Your task to perform on an android device: Open Google Chrome and click the shortcut for Amazon.com Image 0: 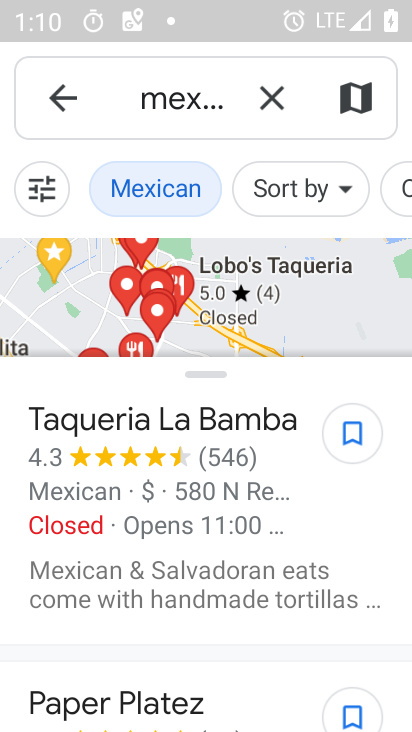
Step 0: press home button
Your task to perform on an android device: Open Google Chrome and click the shortcut for Amazon.com Image 1: 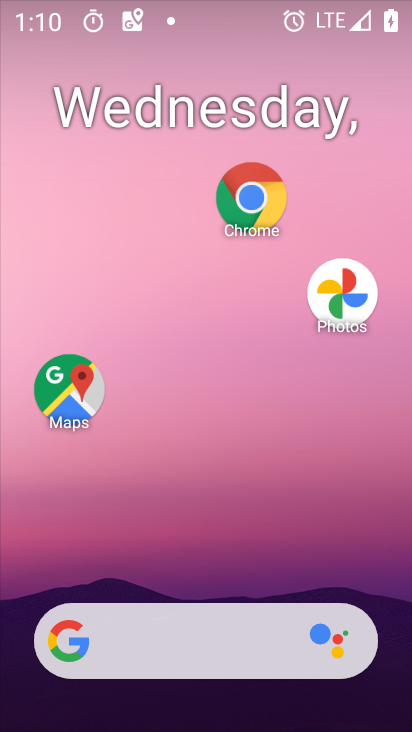
Step 1: drag from (316, 624) to (311, 227)
Your task to perform on an android device: Open Google Chrome and click the shortcut for Amazon.com Image 2: 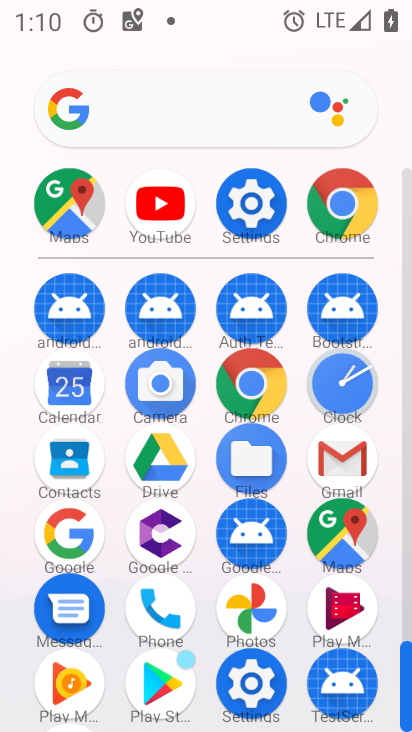
Step 2: click (335, 222)
Your task to perform on an android device: Open Google Chrome and click the shortcut for Amazon.com Image 3: 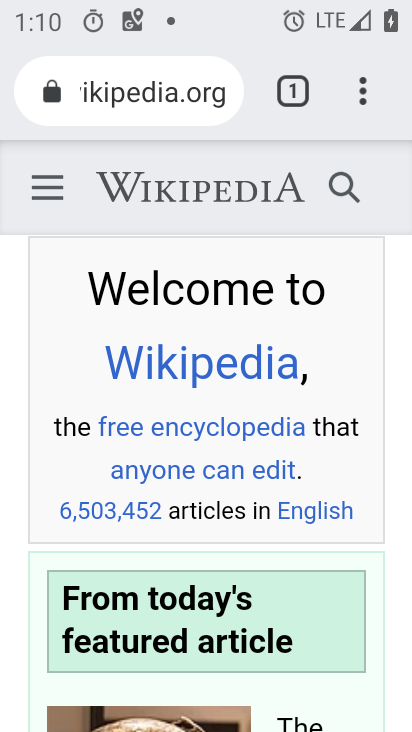
Step 3: drag from (87, 72) to (113, 224)
Your task to perform on an android device: Open Google Chrome and click the shortcut for Amazon.com Image 4: 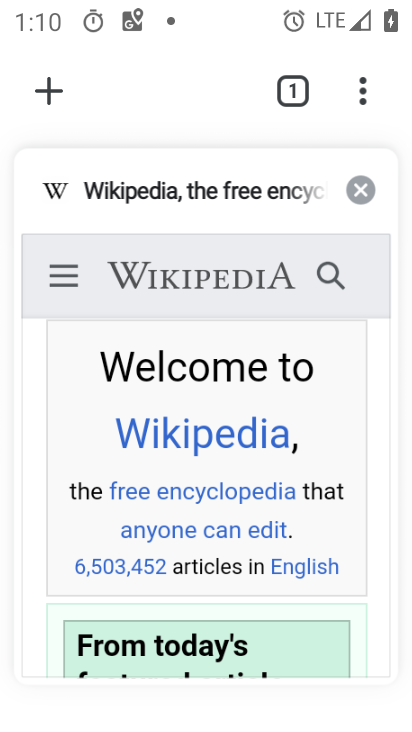
Step 4: click (59, 103)
Your task to perform on an android device: Open Google Chrome and click the shortcut for Amazon.com Image 5: 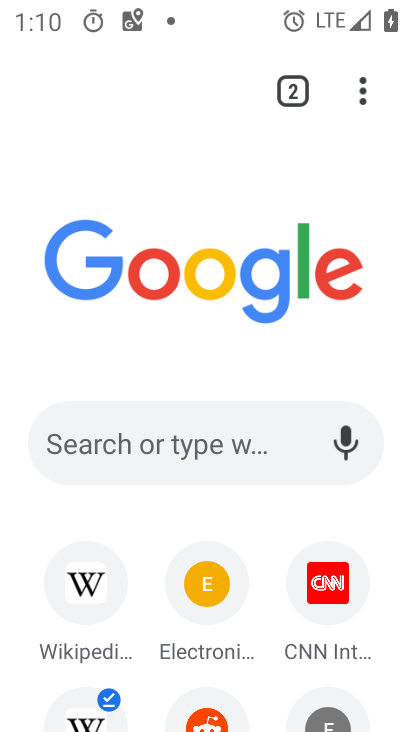
Step 5: task complete